Your task to perform on an android device: open app "Messenger Lite" (install if not already installed) Image 0: 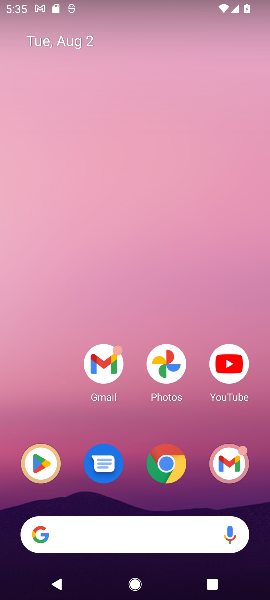
Step 0: press home button
Your task to perform on an android device: open app "Messenger Lite" (install if not already installed) Image 1: 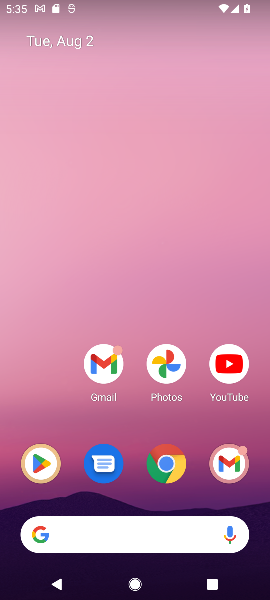
Step 1: click (32, 463)
Your task to perform on an android device: open app "Messenger Lite" (install if not already installed) Image 2: 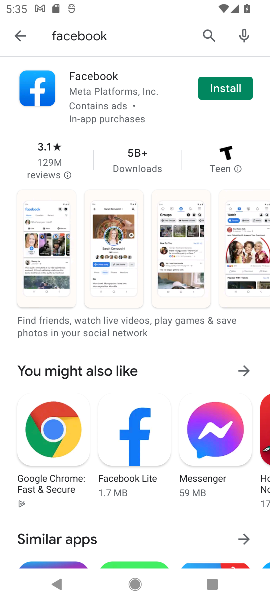
Step 2: click (211, 28)
Your task to perform on an android device: open app "Messenger Lite" (install if not already installed) Image 3: 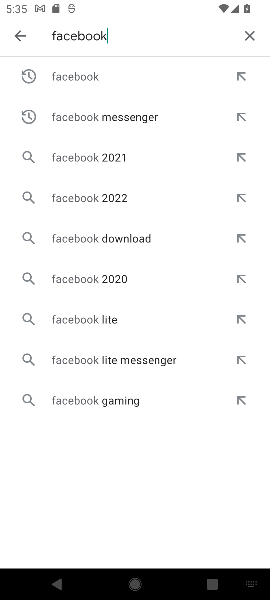
Step 3: click (250, 32)
Your task to perform on an android device: open app "Messenger Lite" (install if not already installed) Image 4: 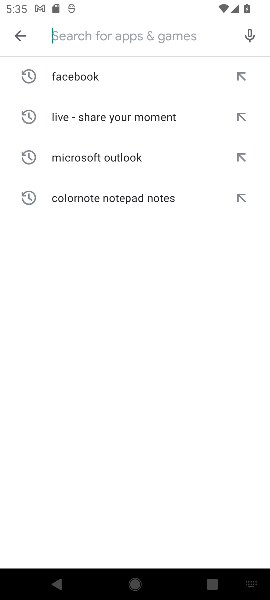
Step 4: type "Messenger Lite"
Your task to perform on an android device: open app "Messenger Lite" (install if not already installed) Image 5: 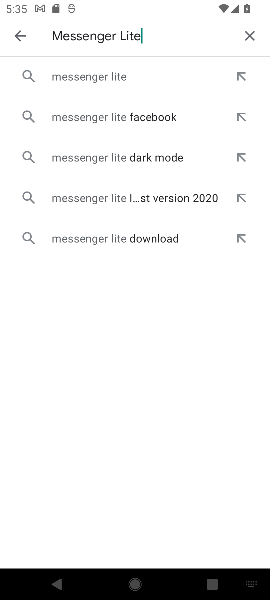
Step 5: click (81, 80)
Your task to perform on an android device: open app "Messenger Lite" (install if not already installed) Image 6: 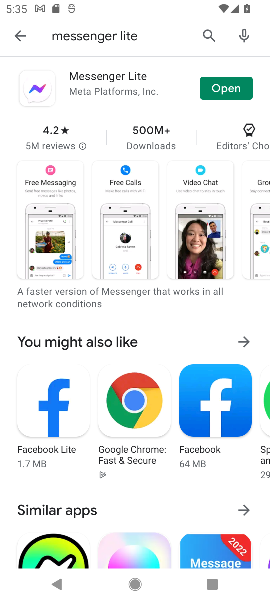
Step 6: click (211, 83)
Your task to perform on an android device: open app "Messenger Lite" (install if not already installed) Image 7: 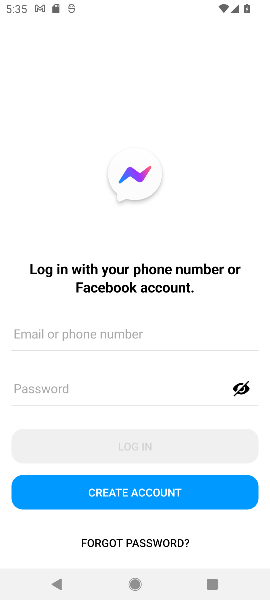
Step 7: task complete